Your task to perform on an android device: toggle notification dots Image 0: 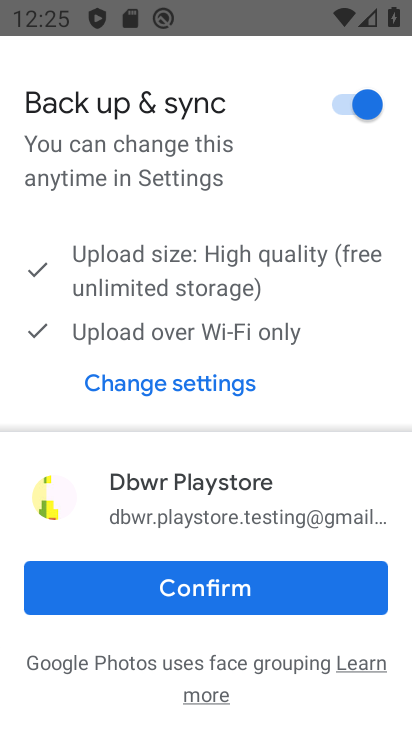
Step 0: press home button
Your task to perform on an android device: toggle notification dots Image 1: 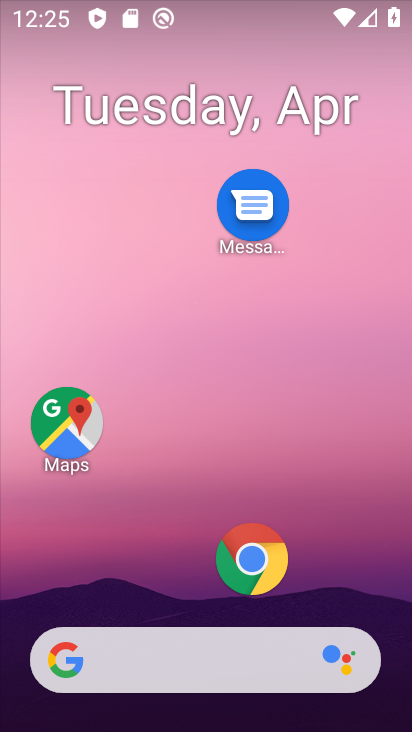
Step 1: drag from (165, 562) to (217, 3)
Your task to perform on an android device: toggle notification dots Image 2: 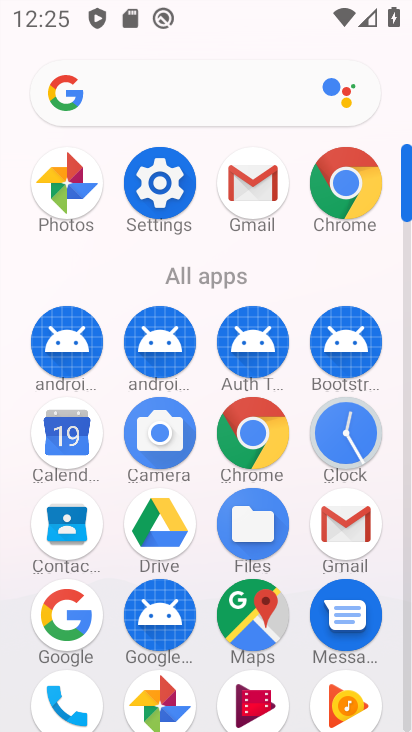
Step 2: click (160, 223)
Your task to perform on an android device: toggle notification dots Image 3: 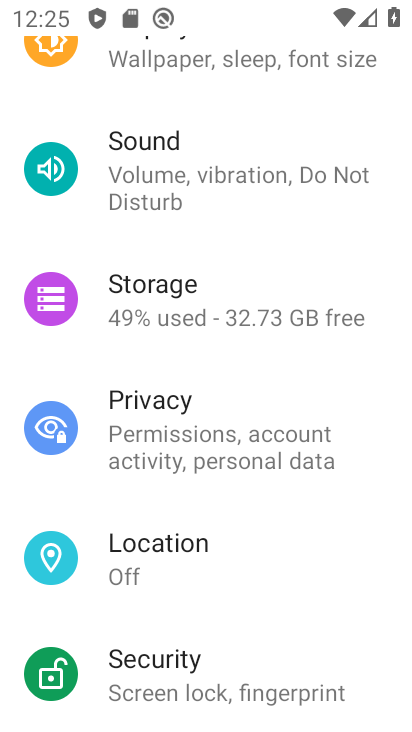
Step 3: drag from (191, 164) to (170, 612)
Your task to perform on an android device: toggle notification dots Image 4: 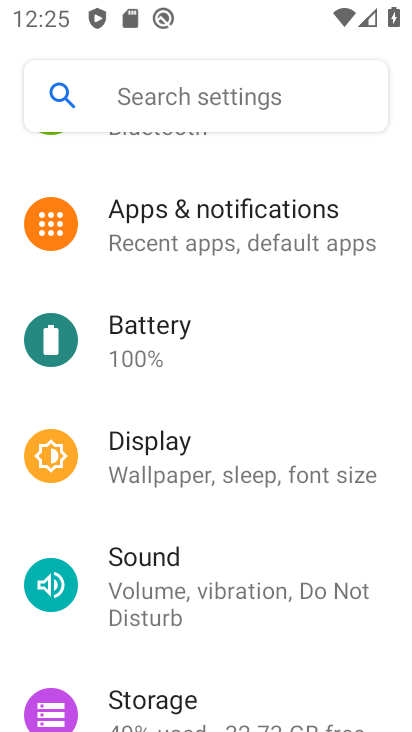
Step 4: click (232, 246)
Your task to perform on an android device: toggle notification dots Image 5: 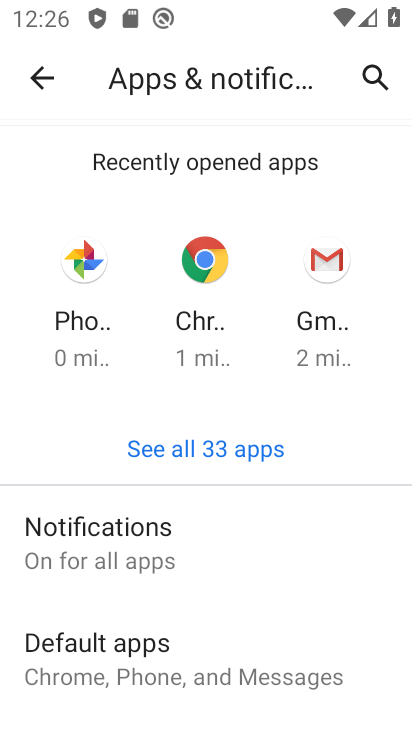
Step 5: drag from (197, 652) to (234, 175)
Your task to perform on an android device: toggle notification dots Image 6: 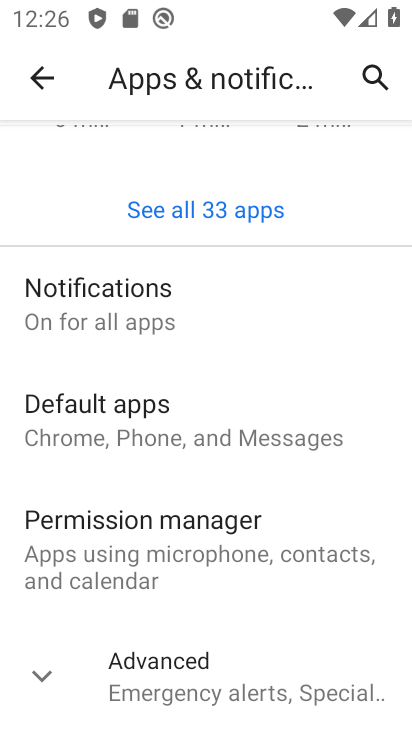
Step 6: click (133, 306)
Your task to perform on an android device: toggle notification dots Image 7: 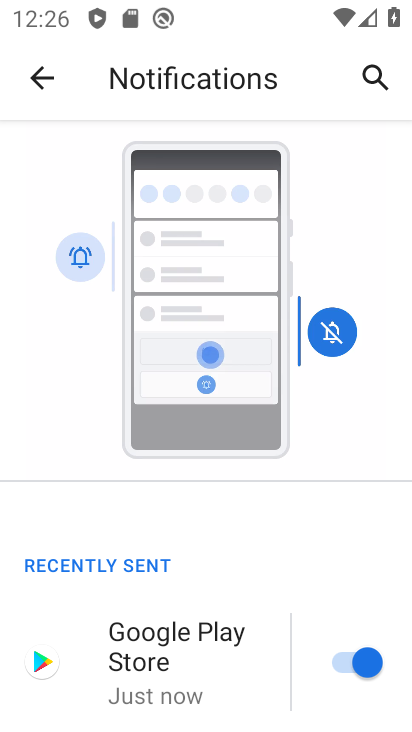
Step 7: drag from (177, 600) to (243, 47)
Your task to perform on an android device: toggle notification dots Image 8: 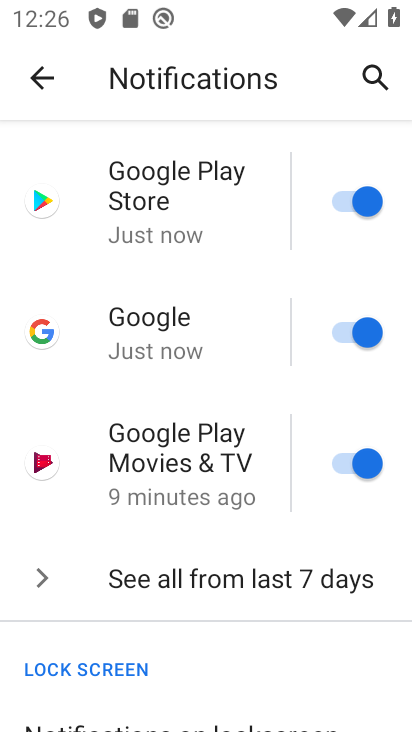
Step 8: drag from (210, 634) to (243, 164)
Your task to perform on an android device: toggle notification dots Image 9: 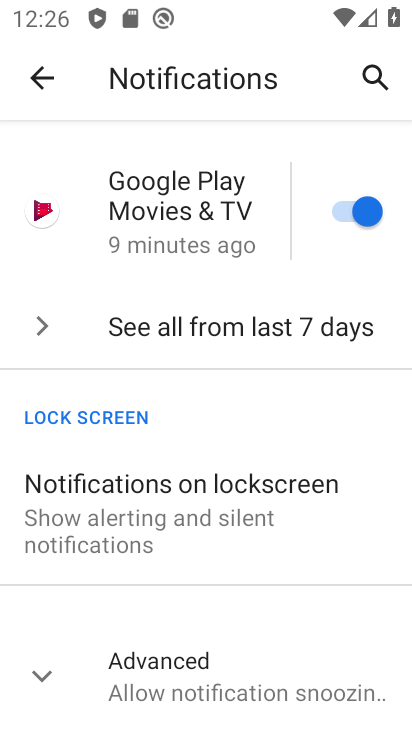
Step 9: click (150, 676)
Your task to perform on an android device: toggle notification dots Image 10: 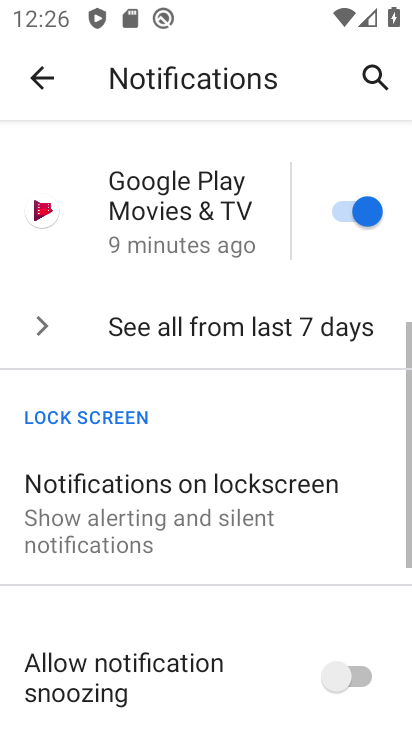
Step 10: drag from (155, 614) to (197, 226)
Your task to perform on an android device: toggle notification dots Image 11: 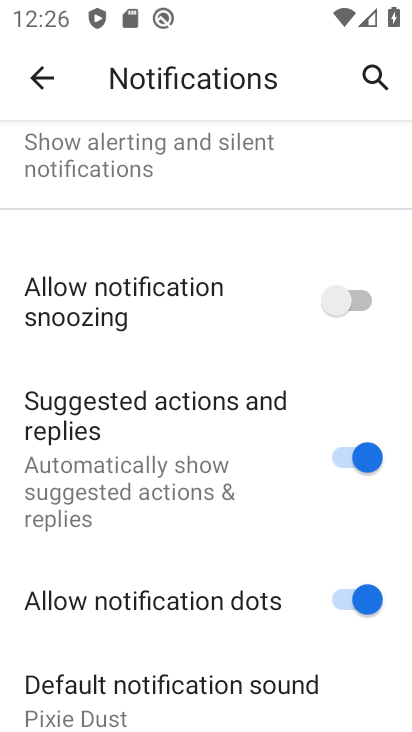
Step 11: click (101, 613)
Your task to perform on an android device: toggle notification dots Image 12: 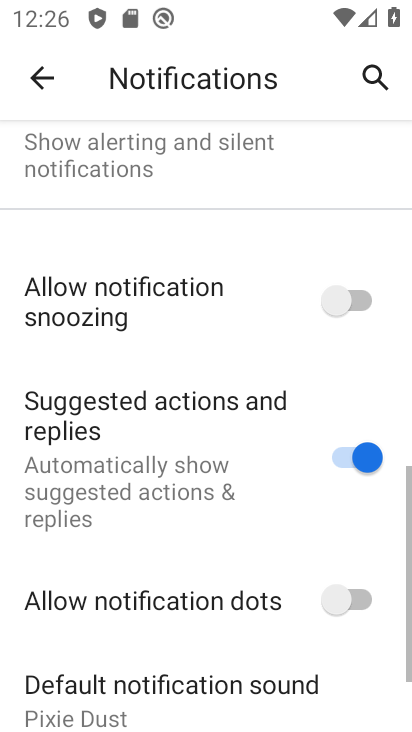
Step 12: click (101, 613)
Your task to perform on an android device: toggle notification dots Image 13: 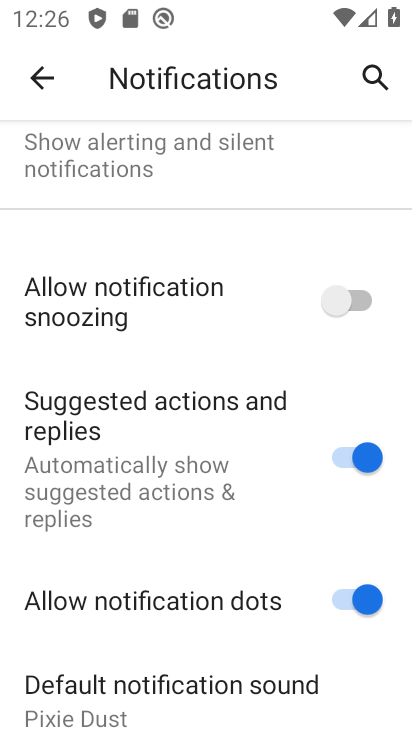
Step 13: task complete